Your task to perform on an android device: change text size in settings app Image 0: 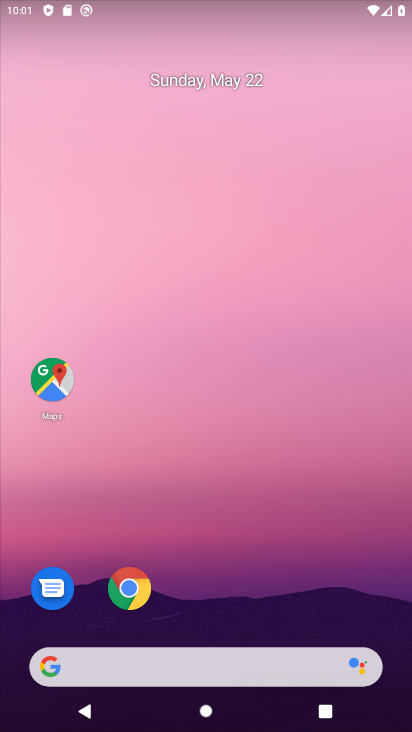
Step 0: drag from (221, 727) to (218, 146)
Your task to perform on an android device: change text size in settings app Image 1: 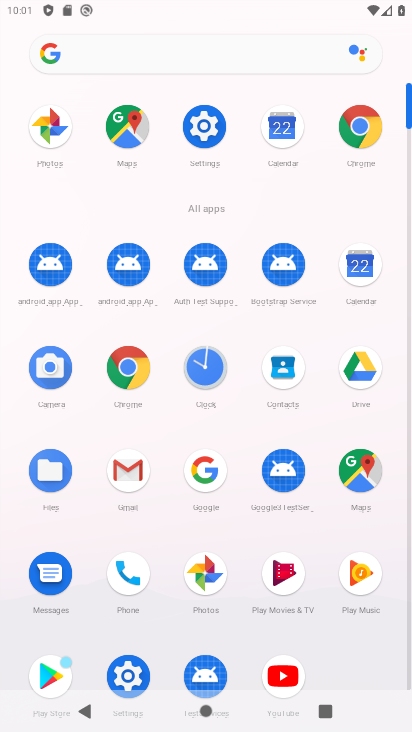
Step 1: click (194, 131)
Your task to perform on an android device: change text size in settings app Image 2: 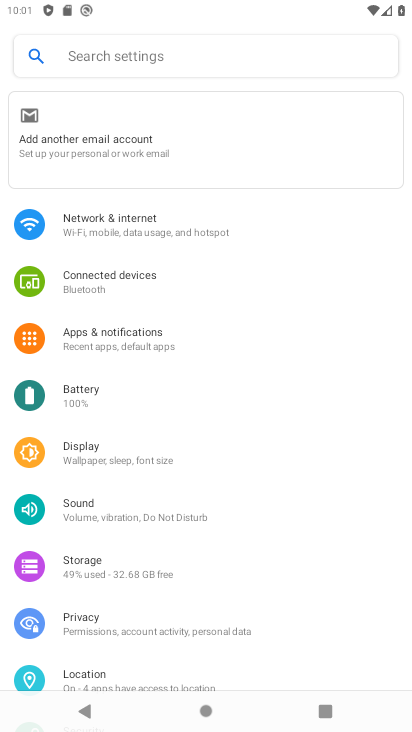
Step 2: click (111, 457)
Your task to perform on an android device: change text size in settings app Image 3: 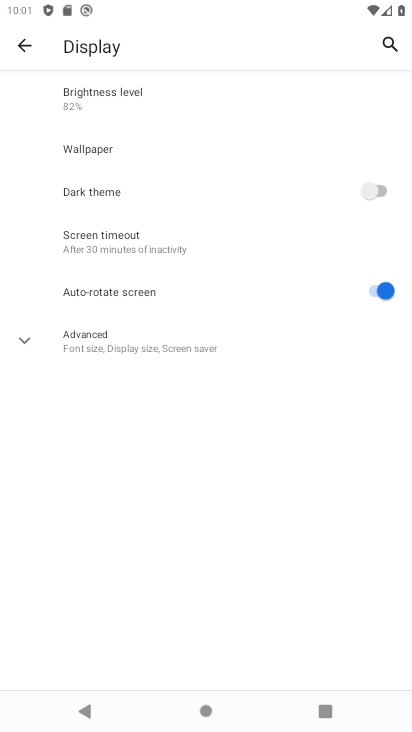
Step 3: click (101, 339)
Your task to perform on an android device: change text size in settings app Image 4: 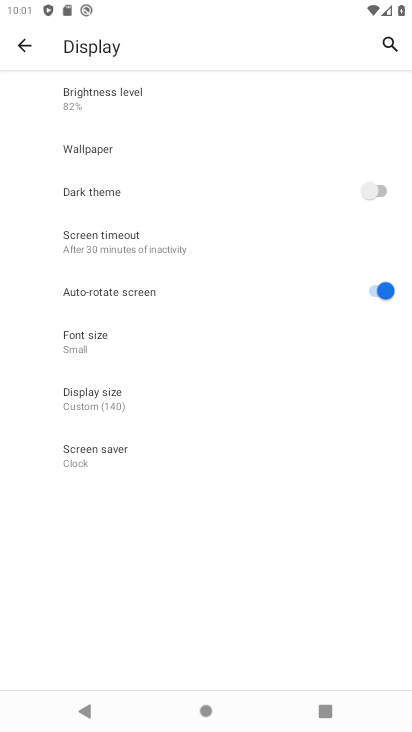
Step 4: click (85, 344)
Your task to perform on an android device: change text size in settings app Image 5: 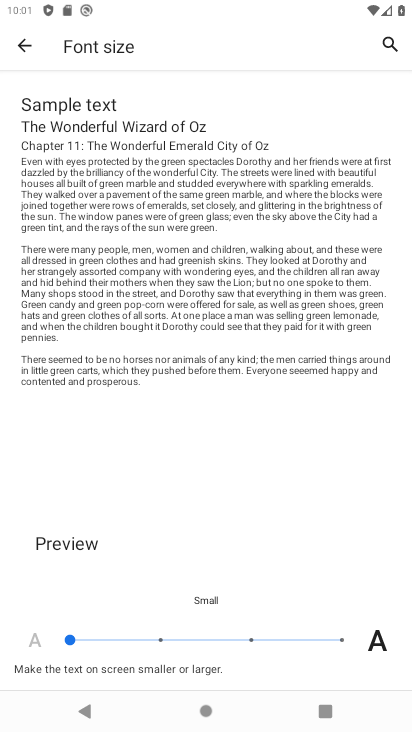
Step 5: click (154, 636)
Your task to perform on an android device: change text size in settings app Image 6: 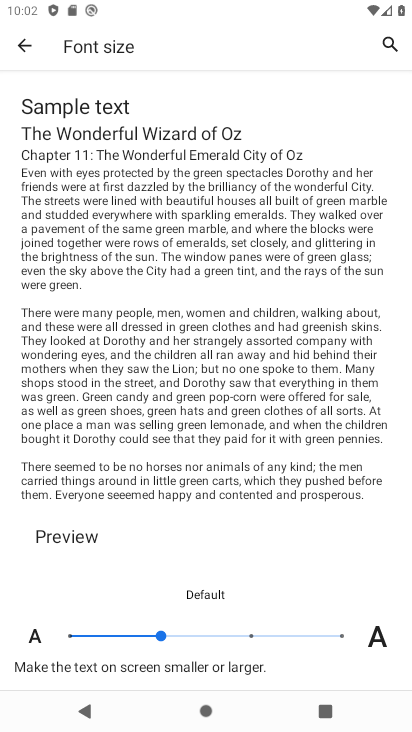
Step 6: task complete